Your task to perform on an android device: Go to Wikipedia Image 0: 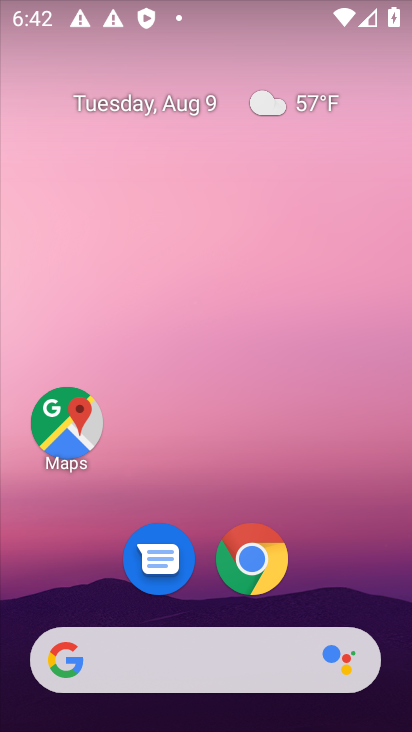
Step 0: click (257, 555)
Your task to perform on an android device: Go to Wikipedia Image 1: 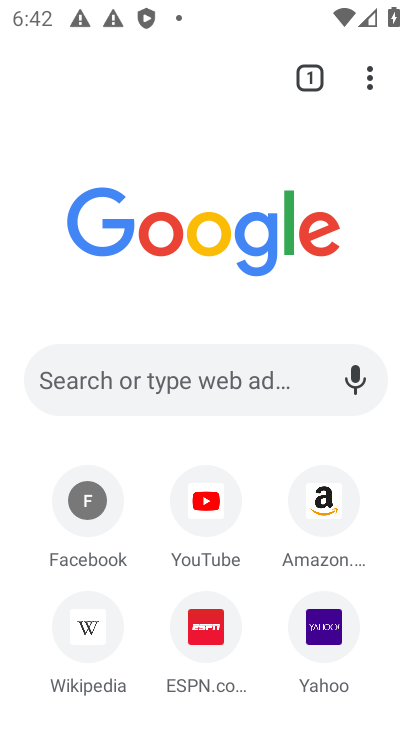
Step 1: click (169, 367)
Your task to perform on an android device: Go to Wikipedia Image 2: 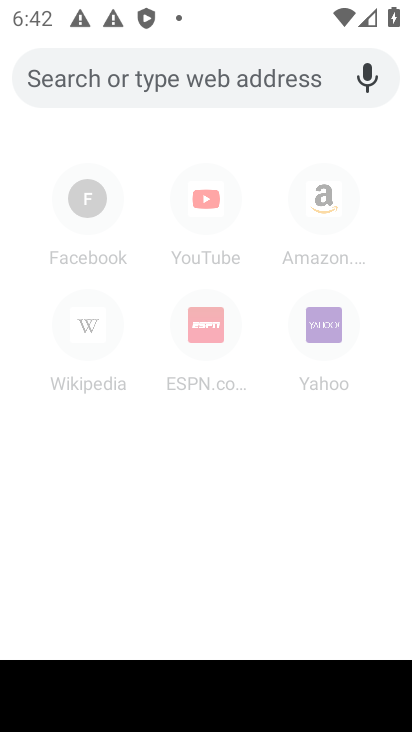
Step 2: click (75, 340)
Your task to perform on an android device: Go to Wikipedia Image 3: 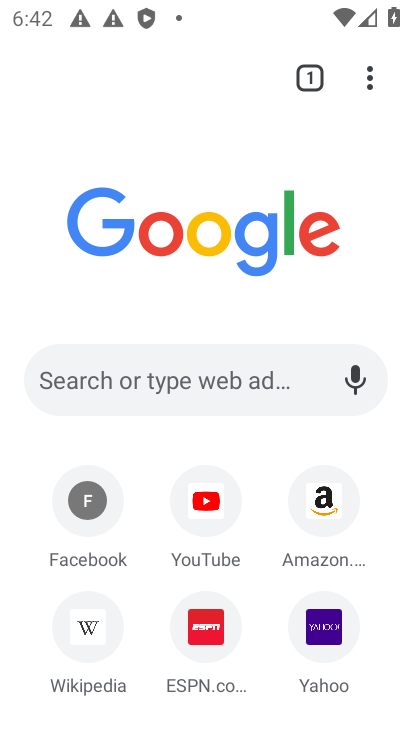
Step 3: click (94, 615)
Your task to perform on an android device: Go to Wikipedia Image 4: 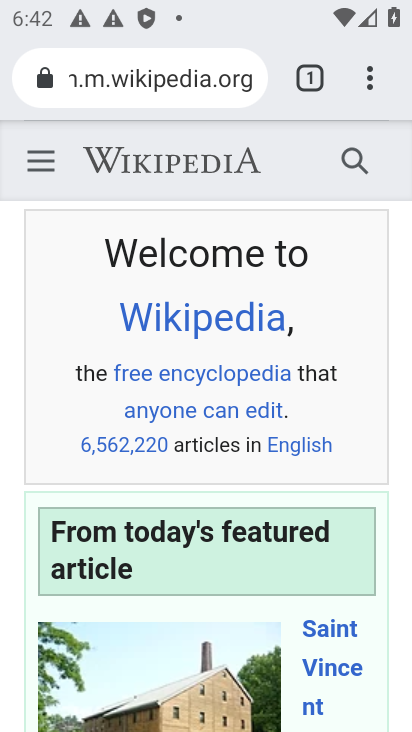
Step 4: task complete